Your task to perform on an android device: open app "Skype" Image 0: 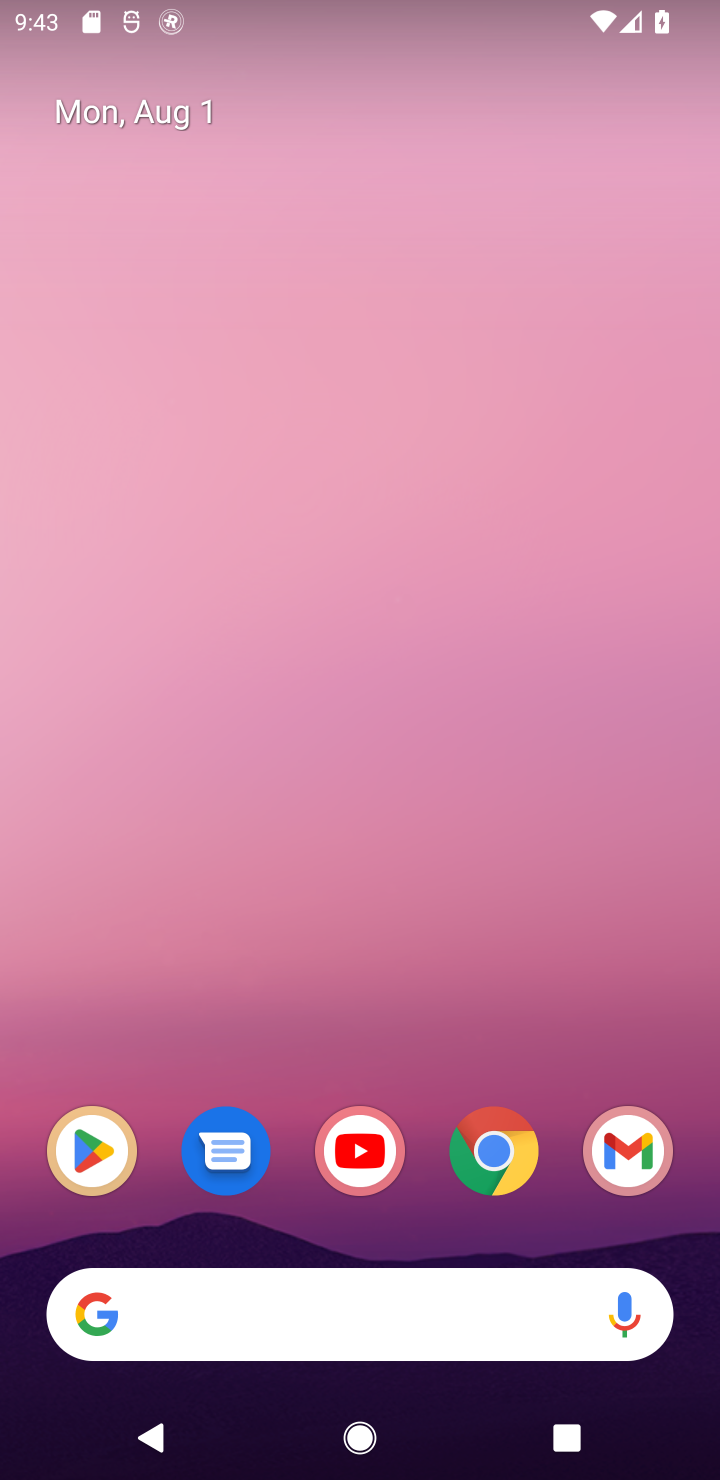
Step 0: click (92, 1147)
Your task to perform on an android device: open app "Skype" Image 1: 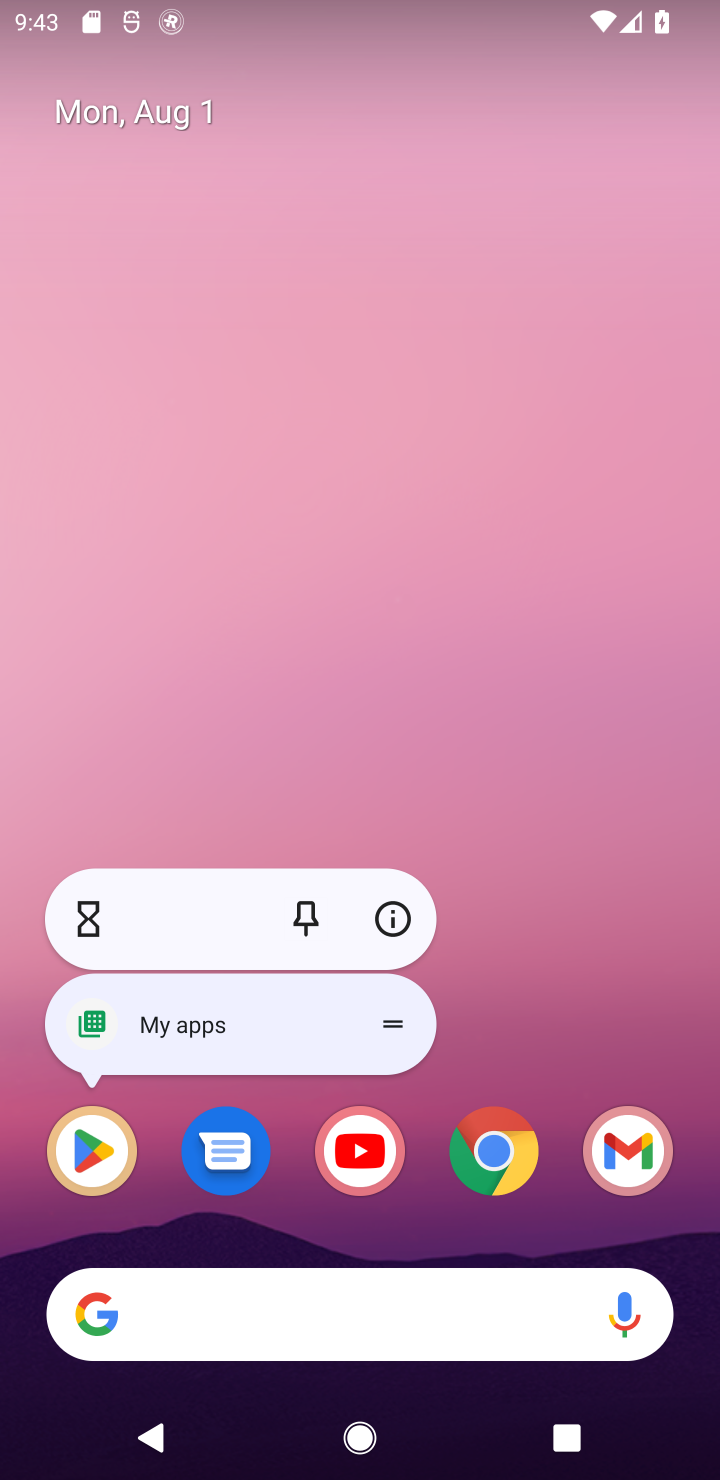
Step 1: click (96, 1174)
Your task to perform on an android device: open app "Skype" Image 2: 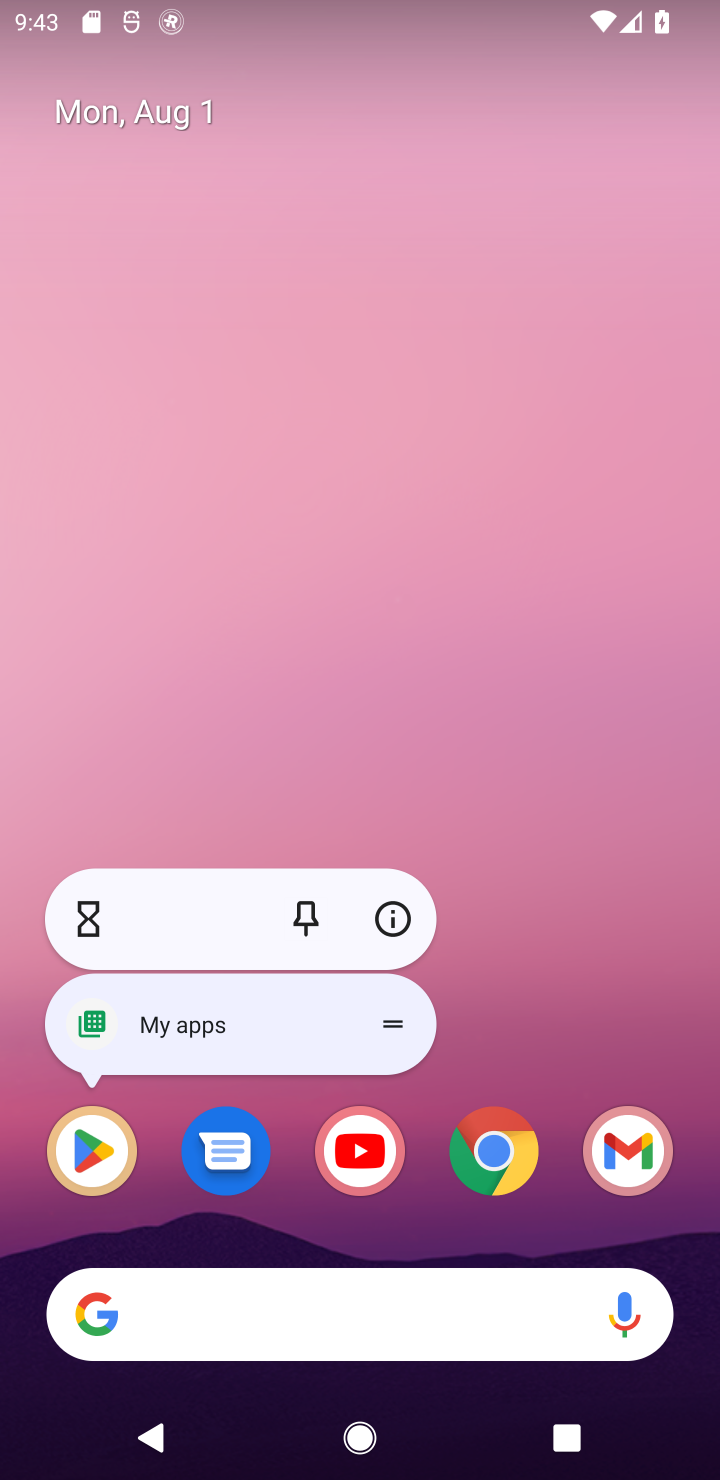
Step 2: click (96, 1174)
Your task to perform on an android device: open app "Skype" Image 3: 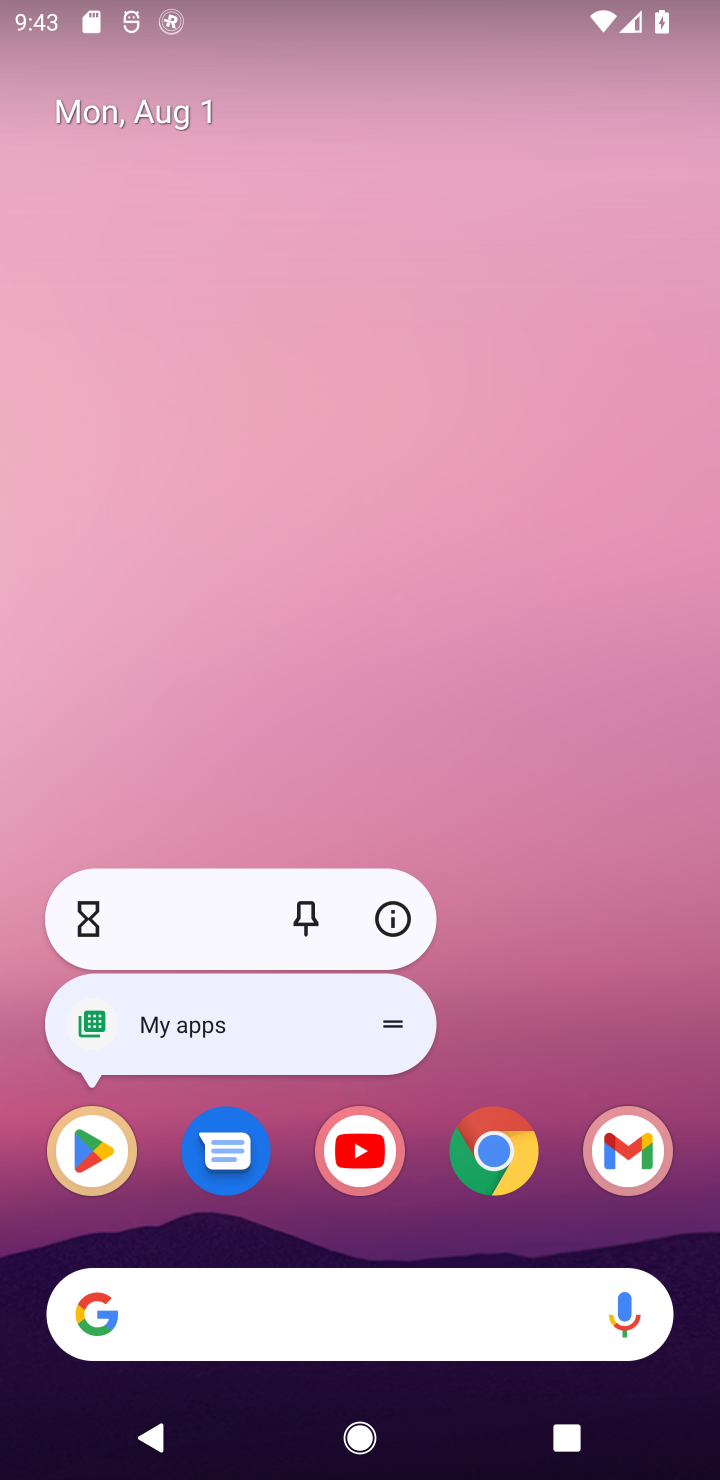
Step 3: click (96, 1174)
Your task to perform on an android device: open app "Skype" Image 4: 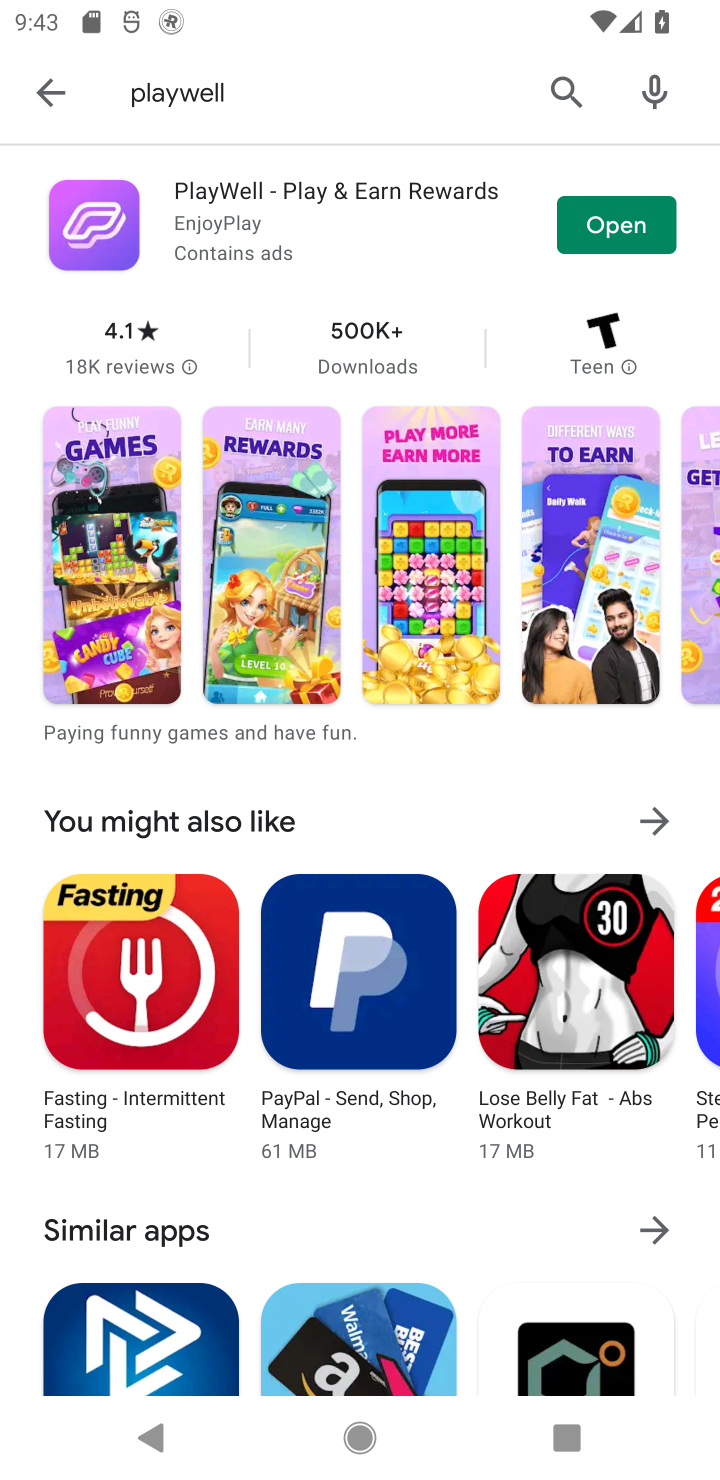
Step 4: click (587, 84)
Your task to perform on an android device: open app "Skype" Image 5: 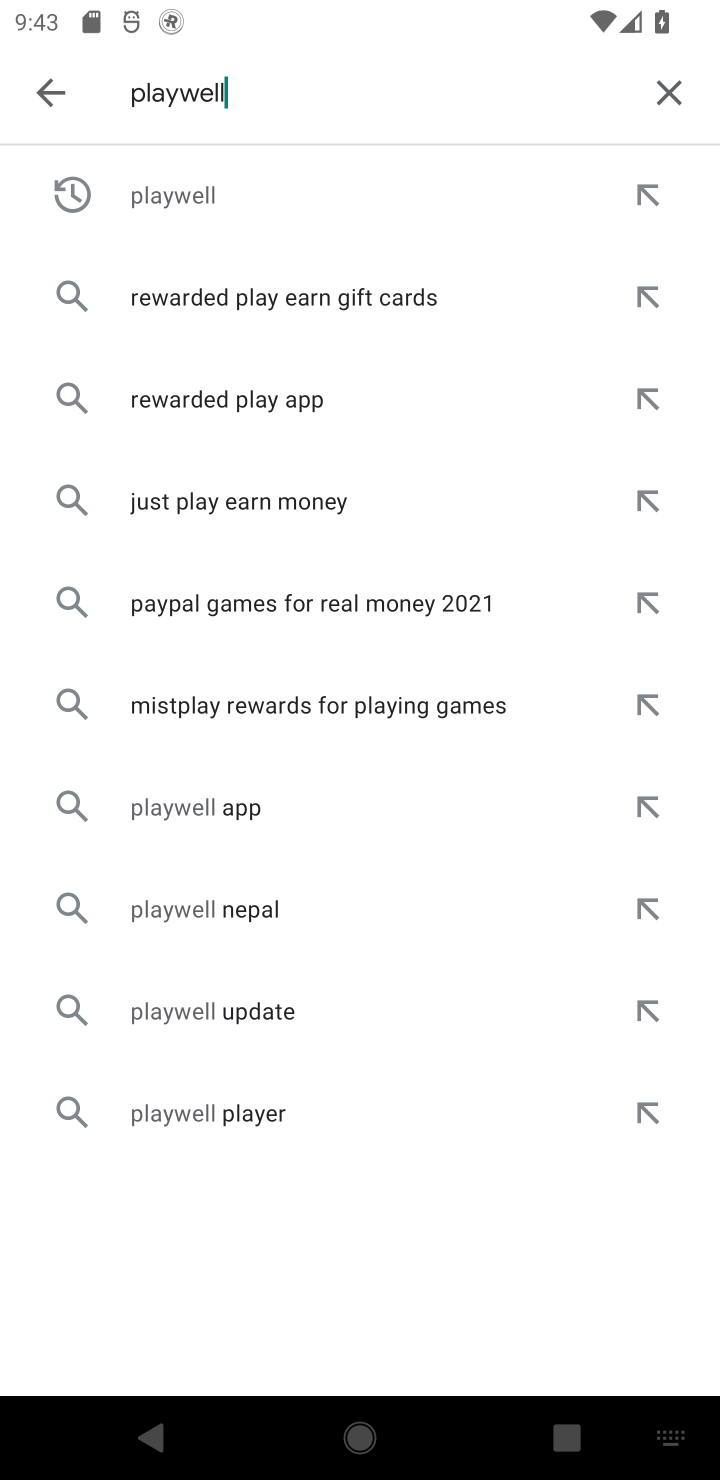
Step 5: click (660, 84)
Your task to perform on an android device: open app "Skype" Image 6: 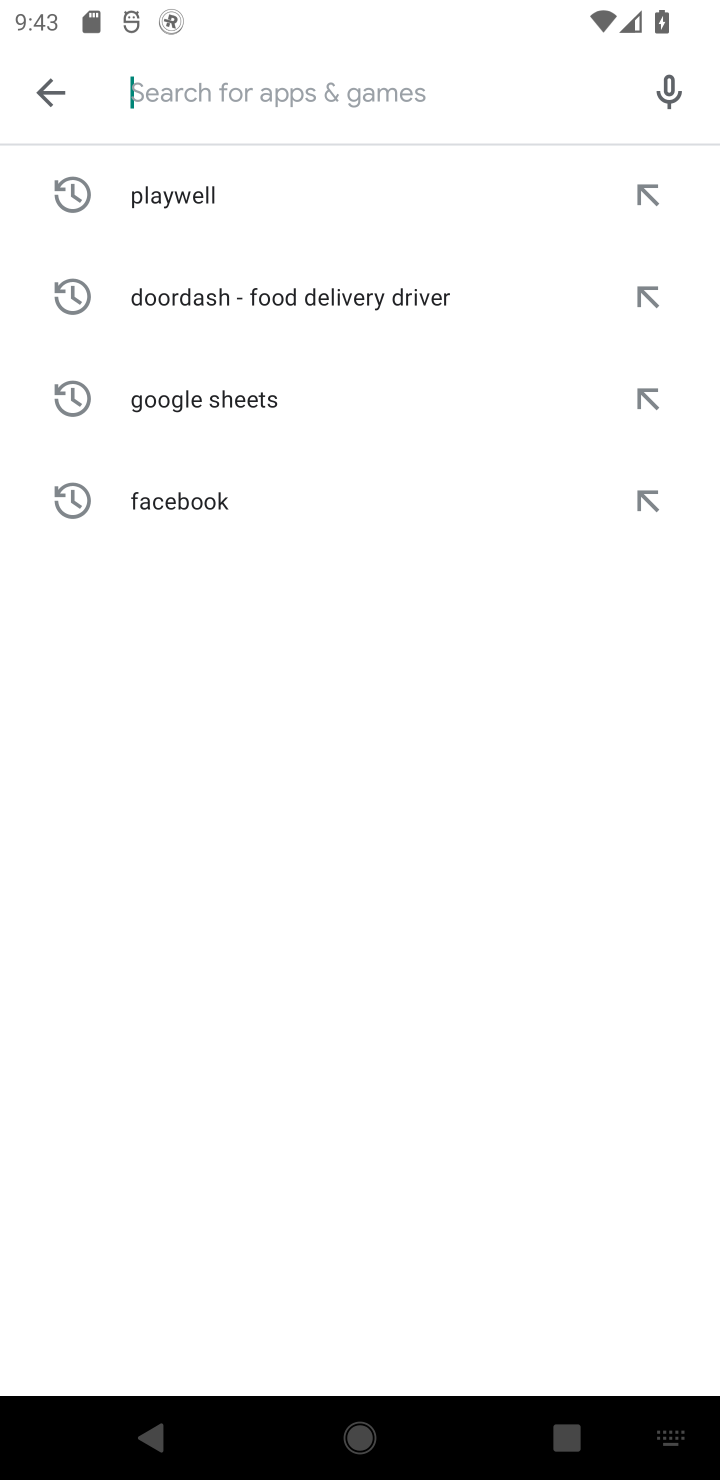
Step 6: type "Skype"
Your task to perform on an android device: open app "Skype" Image 7: 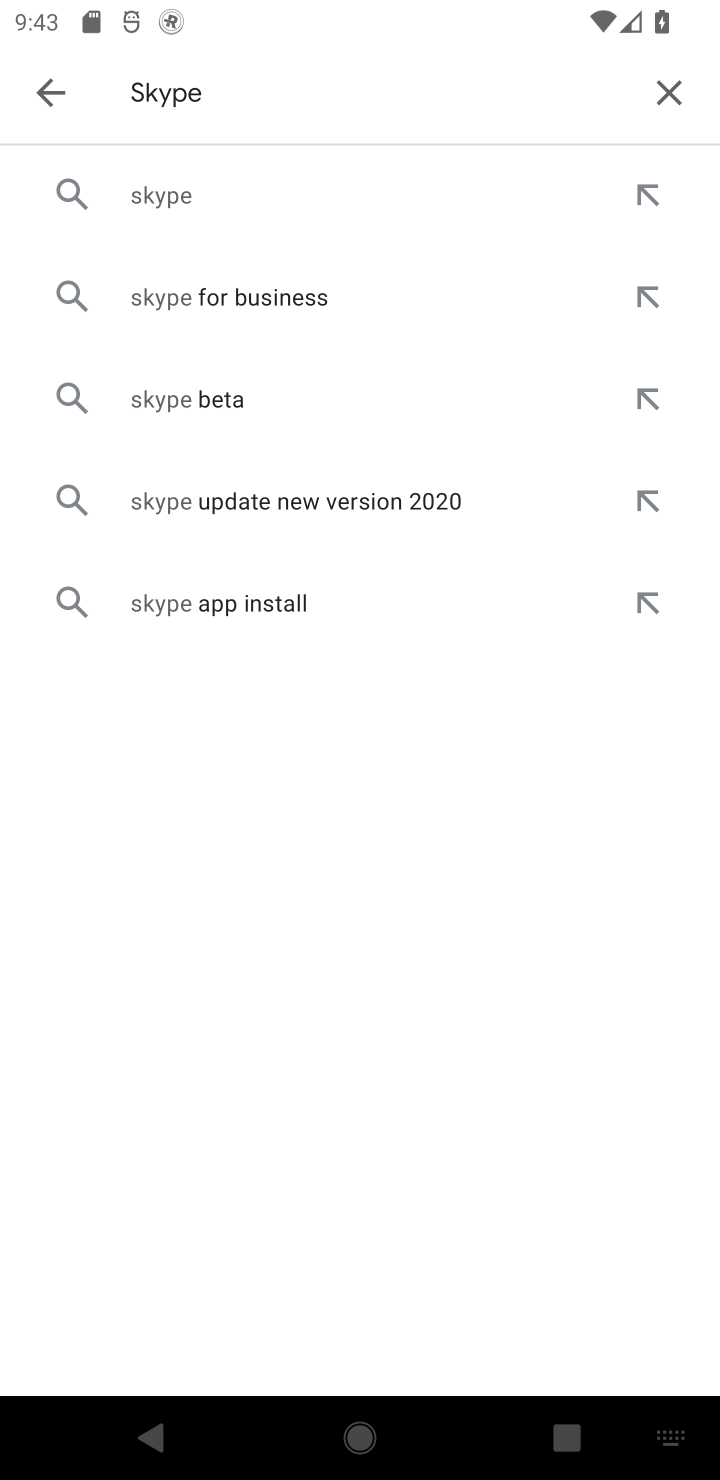
Step 7: click (277, 216)
Your task to perform on an android device: open app "Skype" Image 8: 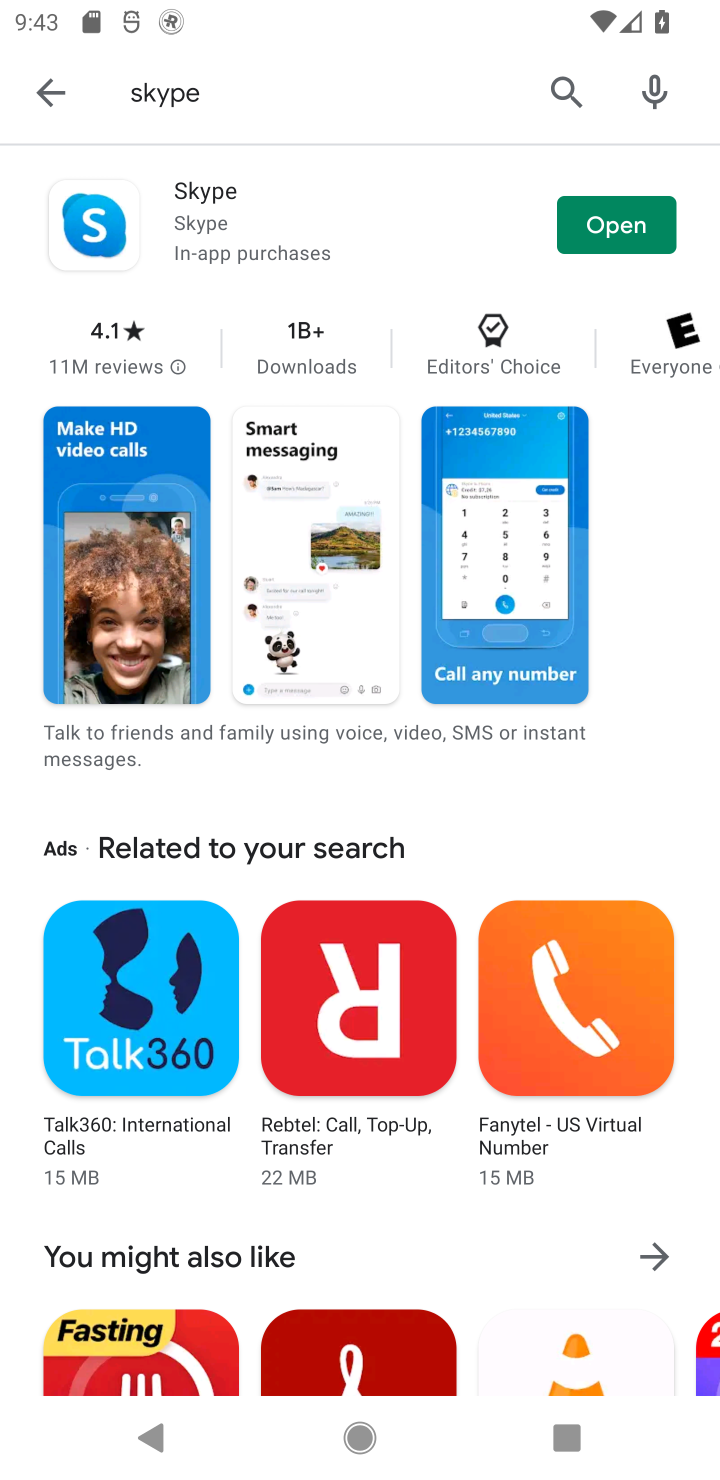
Step 8: click (610, 229)
Your task to perform on an android device: open app "Skype" Image 9: 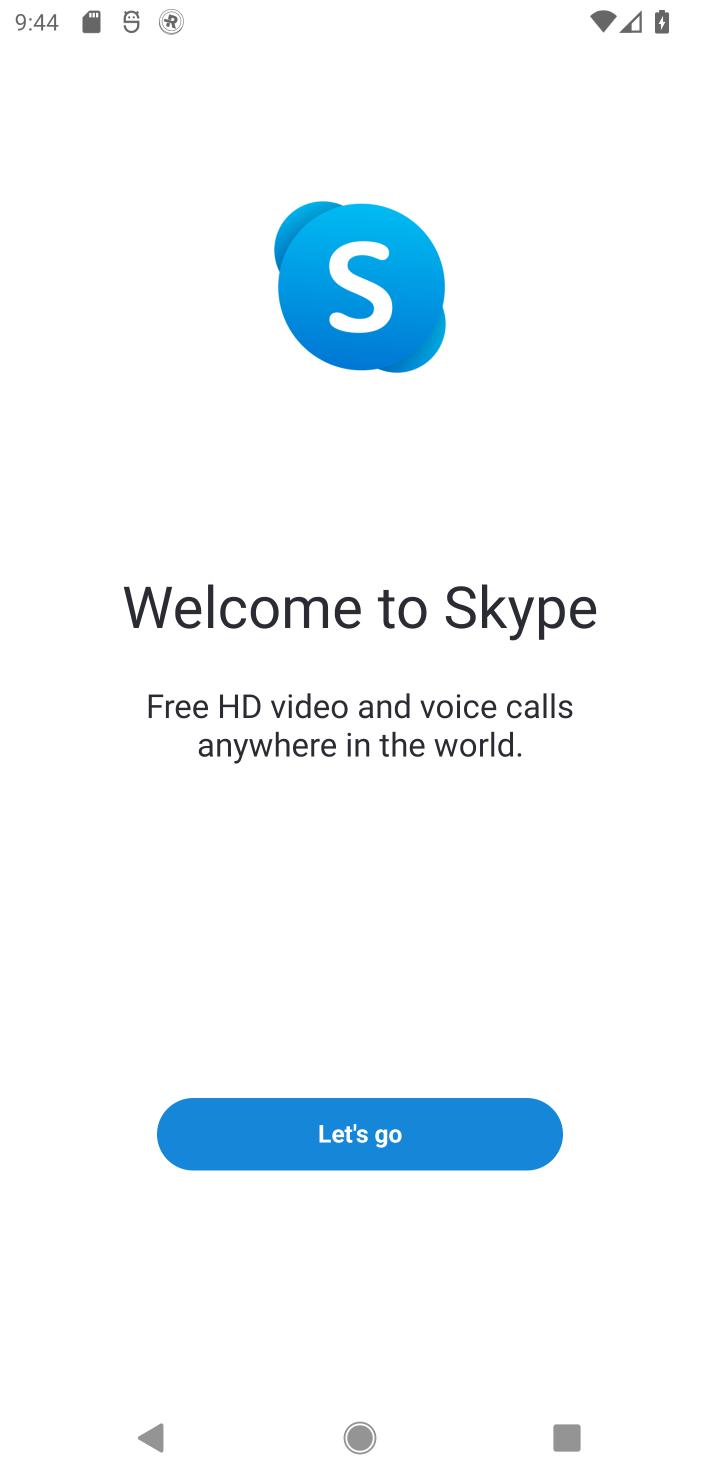
Step 9: task complete